Your task to perform on an android device: turn off smart reply in the gmail app Image 0: 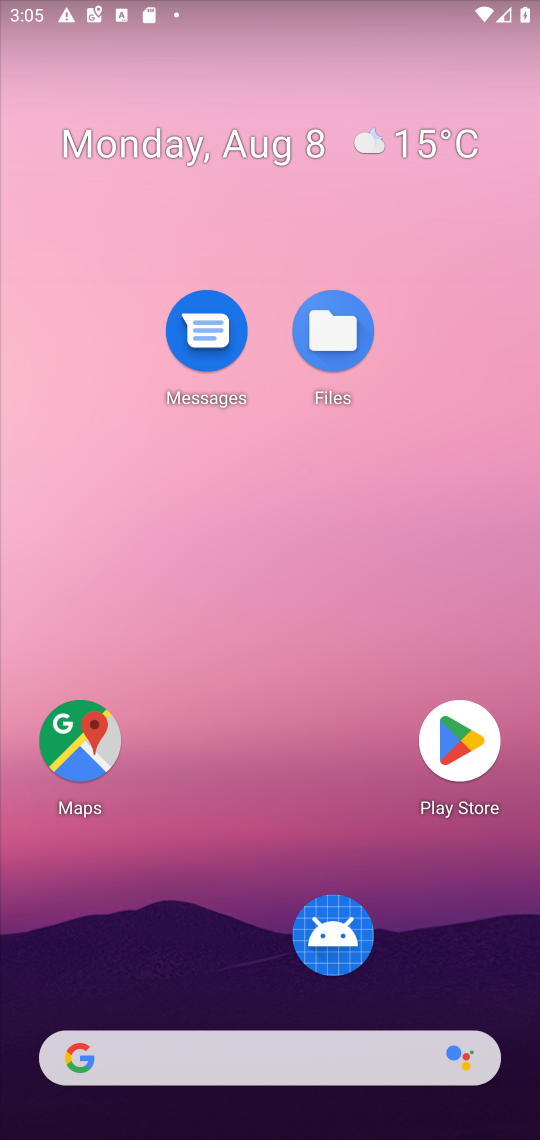
Step 0: drag from (283, 1048) to (207, 27)
Your task to perform on an android device: turn off smart reply in the gmail app Image 1: 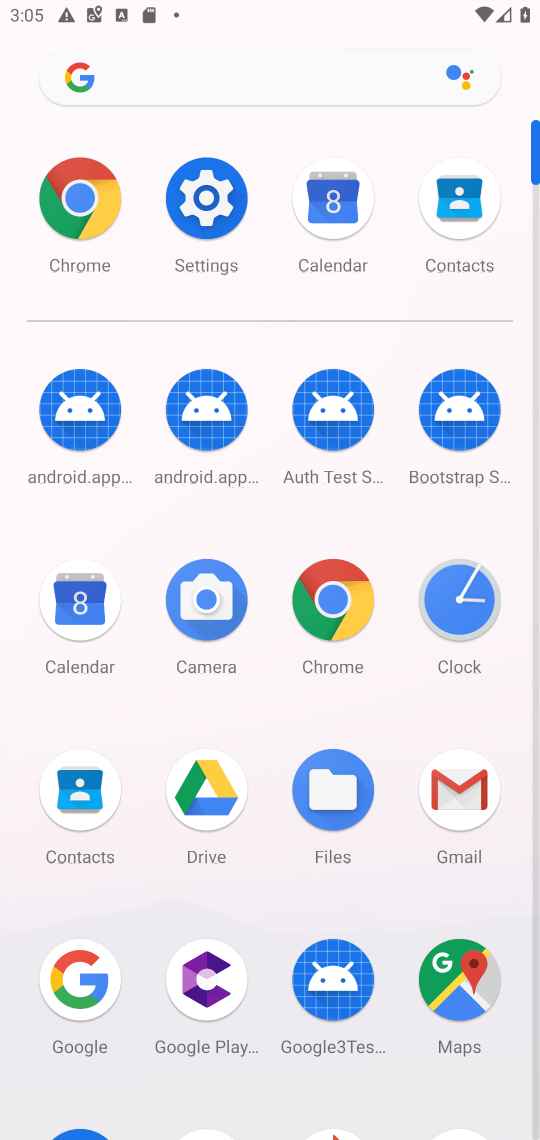
Step 1: click (437, 789)
Your task to perform on an android device: turn off smart reply in the gmail app Image 2: 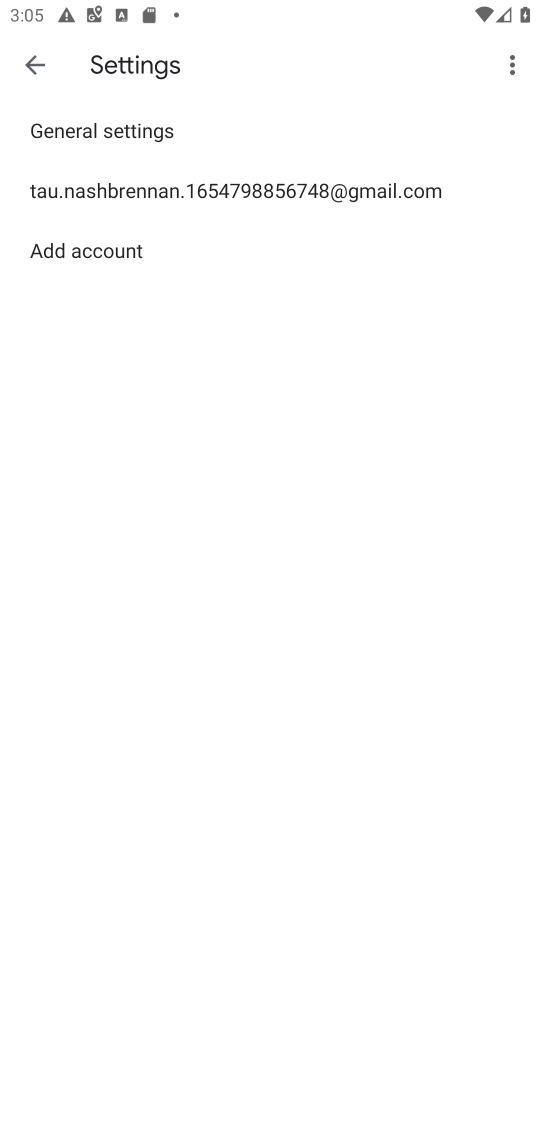
Step 2: click (221, 198)
Your task to perform on an android device: turn off smart reply in the gmail app Image 3: 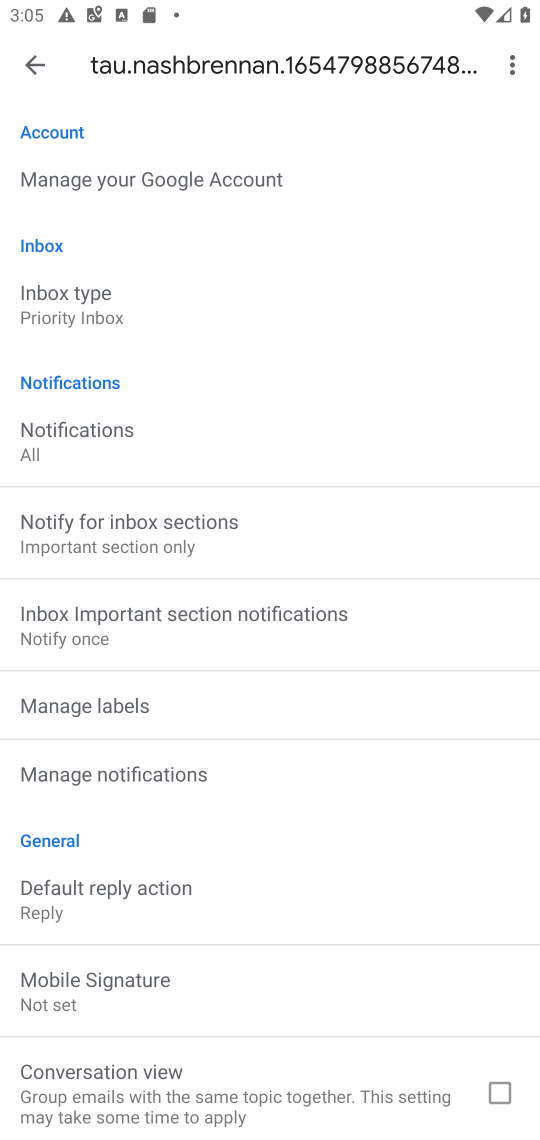
Step 3: drag from (328, 893) to (351, 225)
Your task to perform on an android device: turn off smart reply in the gmail app Image 4: 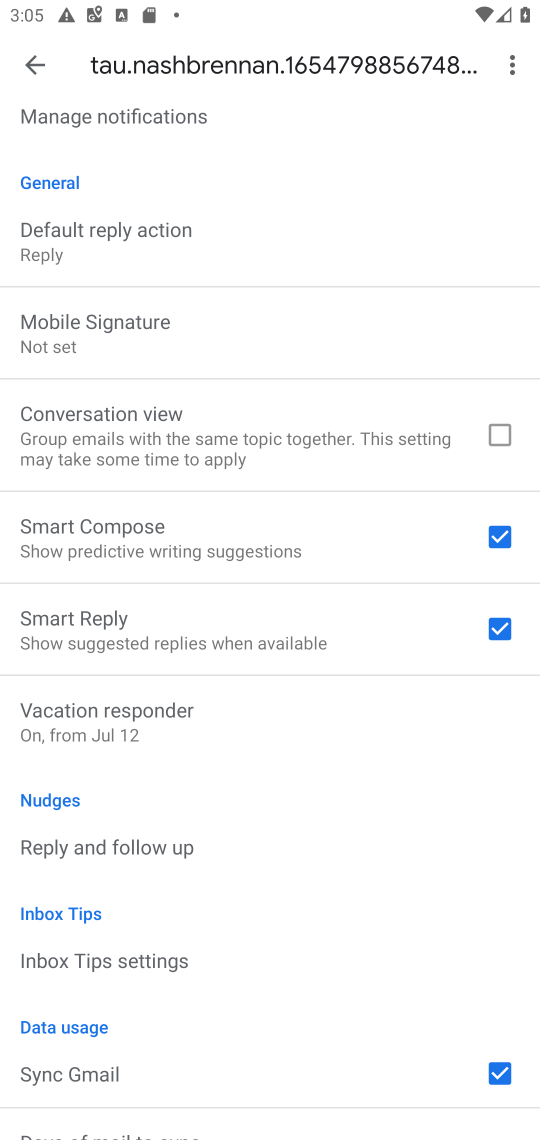
Step 4: drag from (339, 975) to (339, 578)
Your task to perform on an android device: turn off smart reply in the gmail app Image 5: 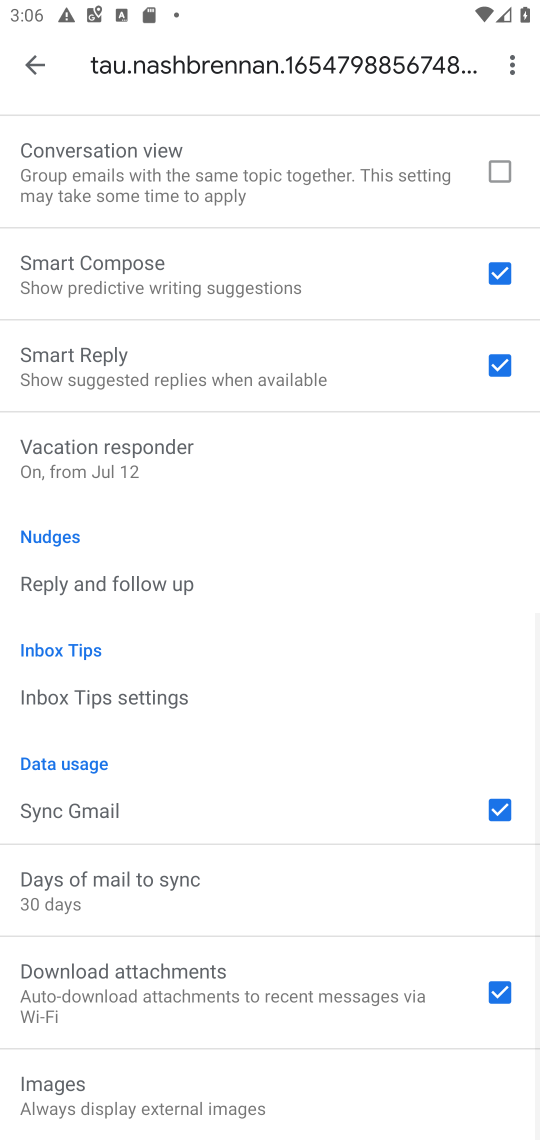
Step 5: click (491, 351)
Your task to perform on an android device: turn off smart reply in the gmail app Image 6: 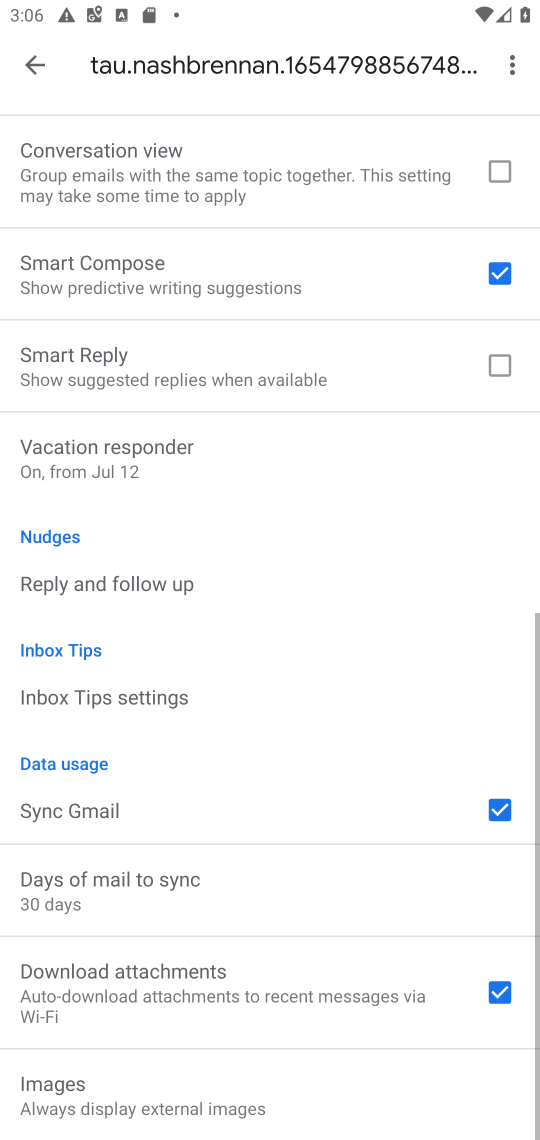
Step 6: task complete